Your task to perform on an android device: stop showing notifications on the lock screen Image 0: 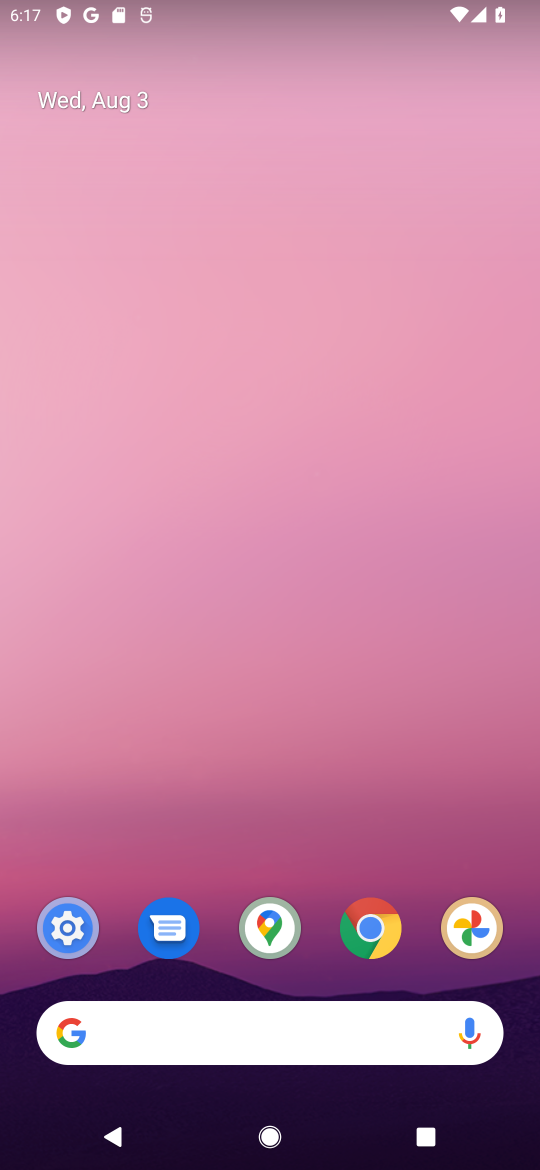
Step 0: press home button
Your task to perform on an android device: stop showing notifications on the lock screen Image 1: 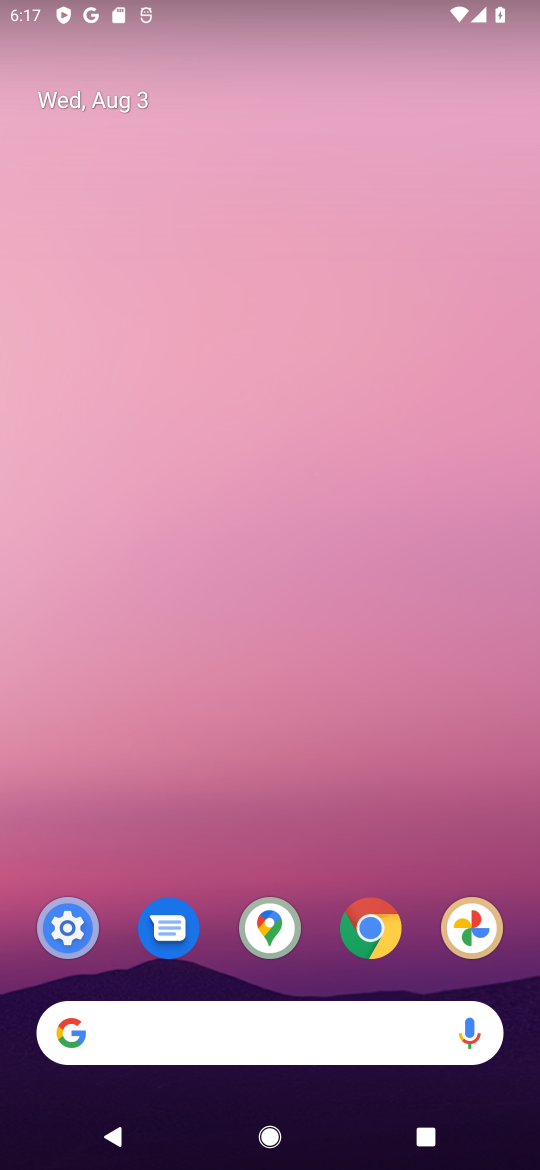
Step 1: drag from (315, 860) to (334, 204)
Your task to perform on an android device: stop showing notifications on the lock screen Image 2: 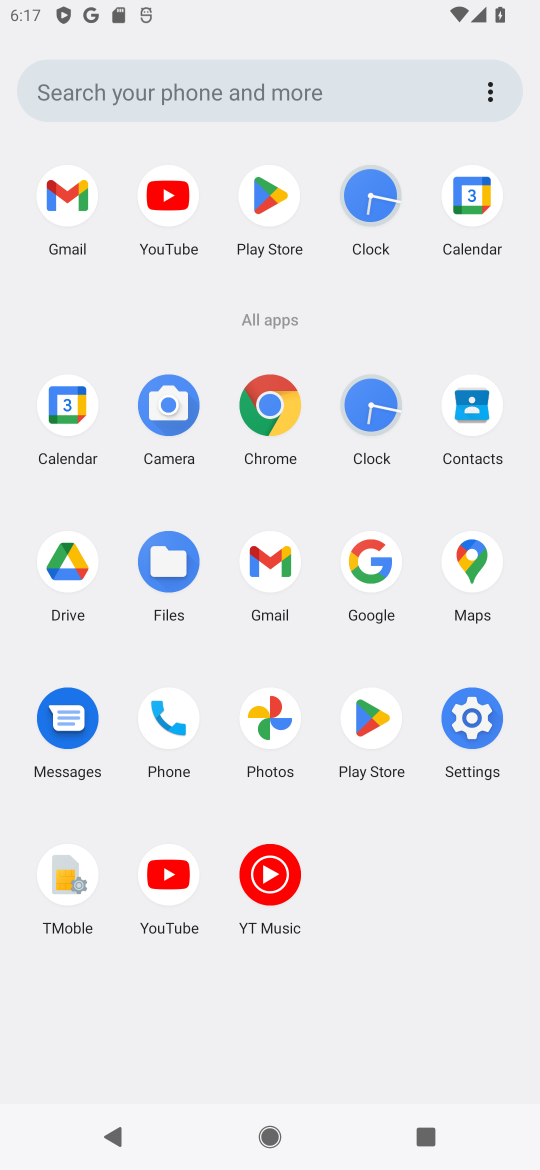
Step 2: click (468, 726)
Your task to perform on an android device: stop showing notifications on the lock screen Image 3: 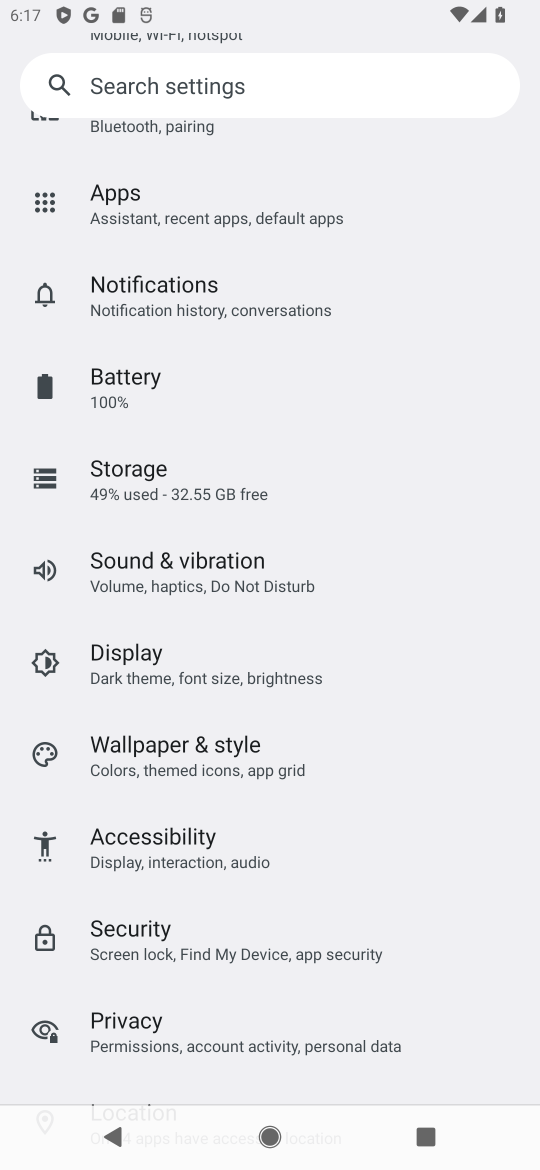
Step 3: drag from (472, 991) to (484, 809)
Your task to perform on an android device: stop showing notifications on the lock screen Image 4: 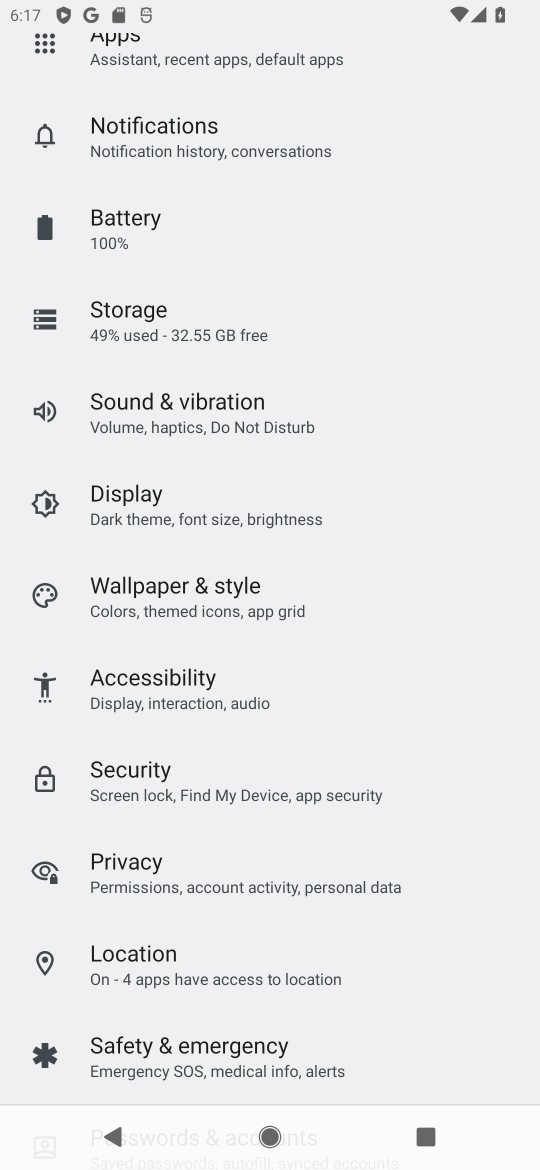
Step 4: drag from (435, 982) to (449, 828)
Your task to perform on an android device: stop showing notifications on the lock screen Image 5: 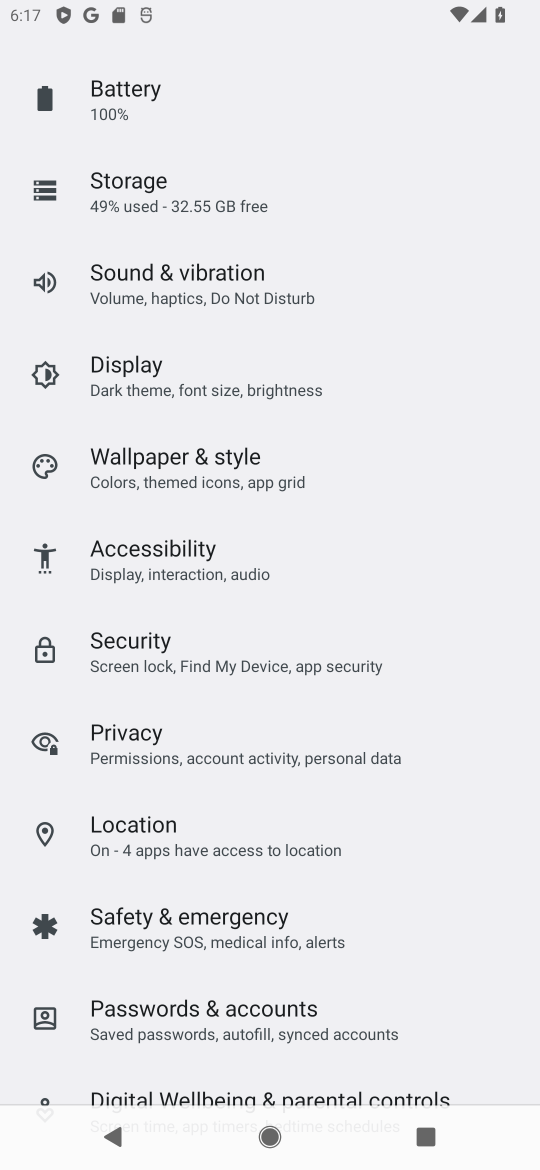
Step 5: drag from (423, 991) to (414, 544)
Your task to perform on an android device: stop showing notifications on the lock screen Image 6: 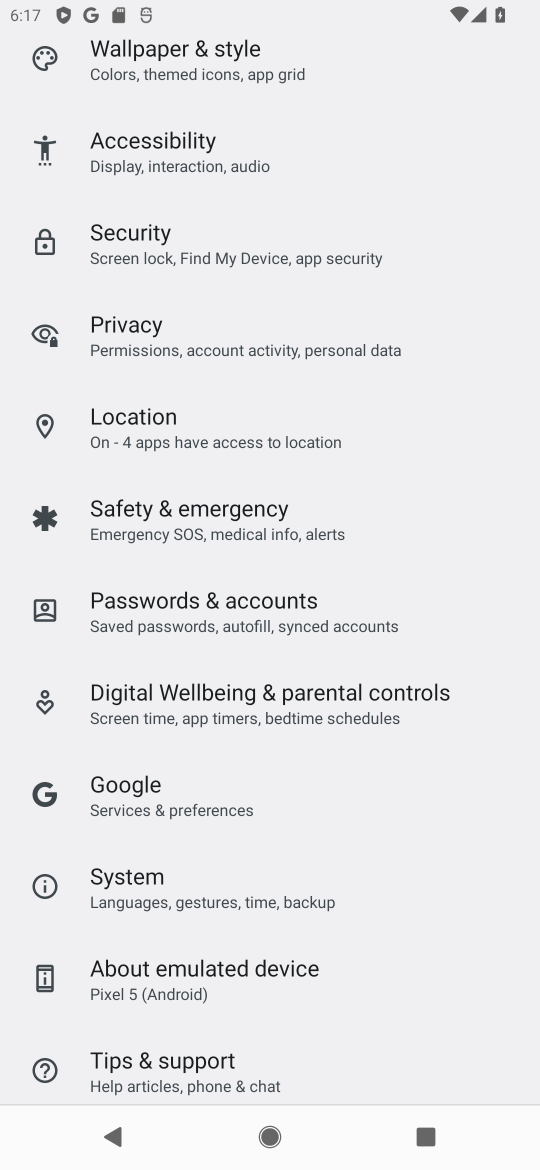
Step 6: drag from (415, 855) to (438, 628)
Your task to perform on an android device: stop showing notifications on the lock screen Image 7: 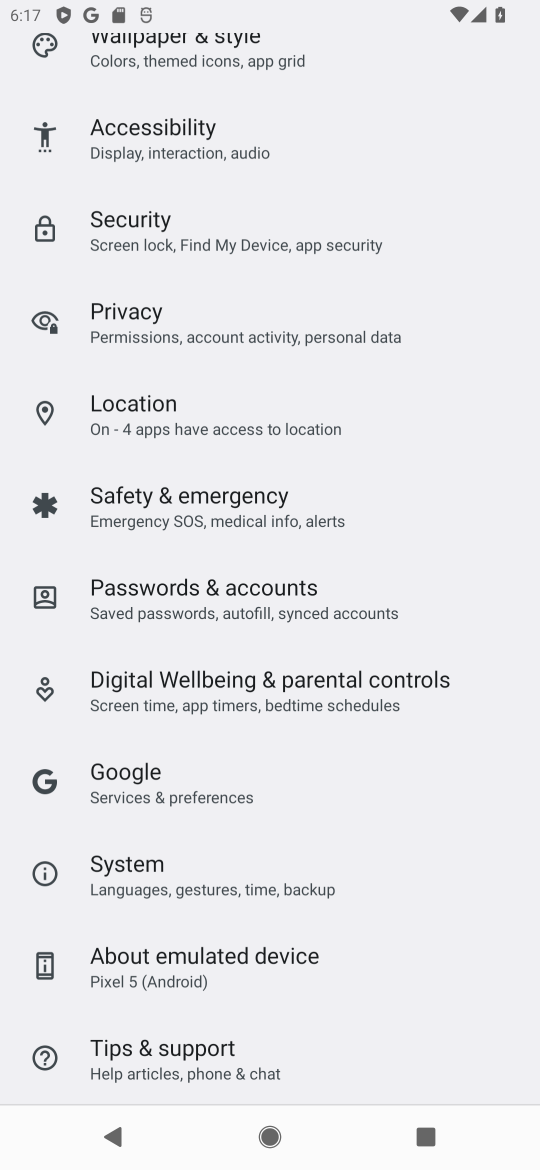
Step 7: drag from (463, 440) to (472, 601)
Your task to perform on an android device: stop showing notifications on the lock screen Image 8: 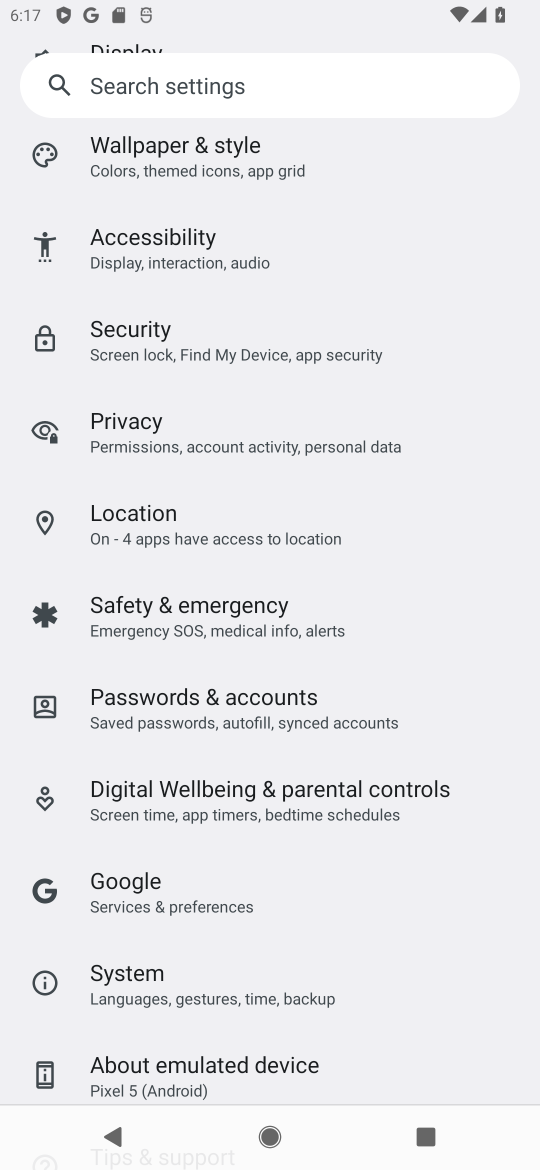
Step 8: drag from (463, 378) to (464, 506)
Your task to perform on an android device: stop showing notifications on the lock screen Image 9: 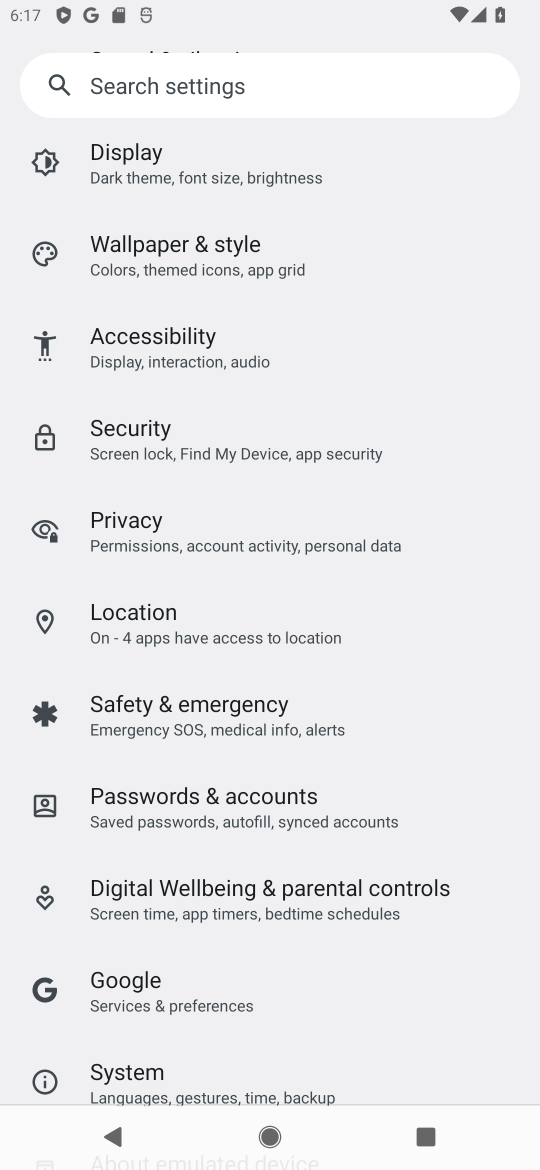
Step 9: drag from (462, 319) to (462, 490)
Your task to perform on an android device: stop showing notifications on the lock screen Image 10: 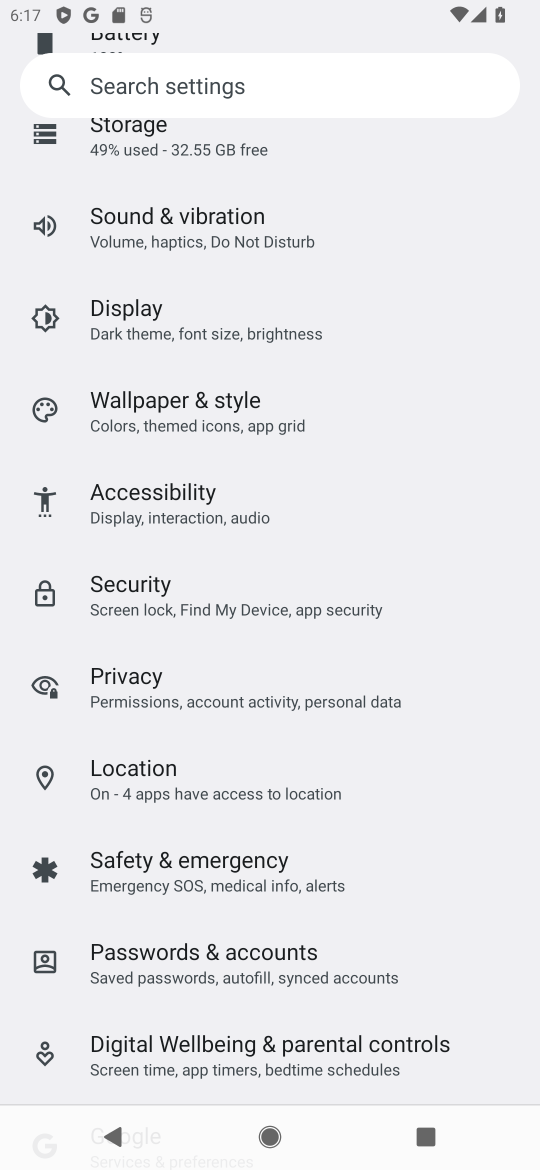
Step 10: drag from (451, 236) to (451, 536)
Your task to perform on an android device: stop showing notifications on the lock screen Image 11: 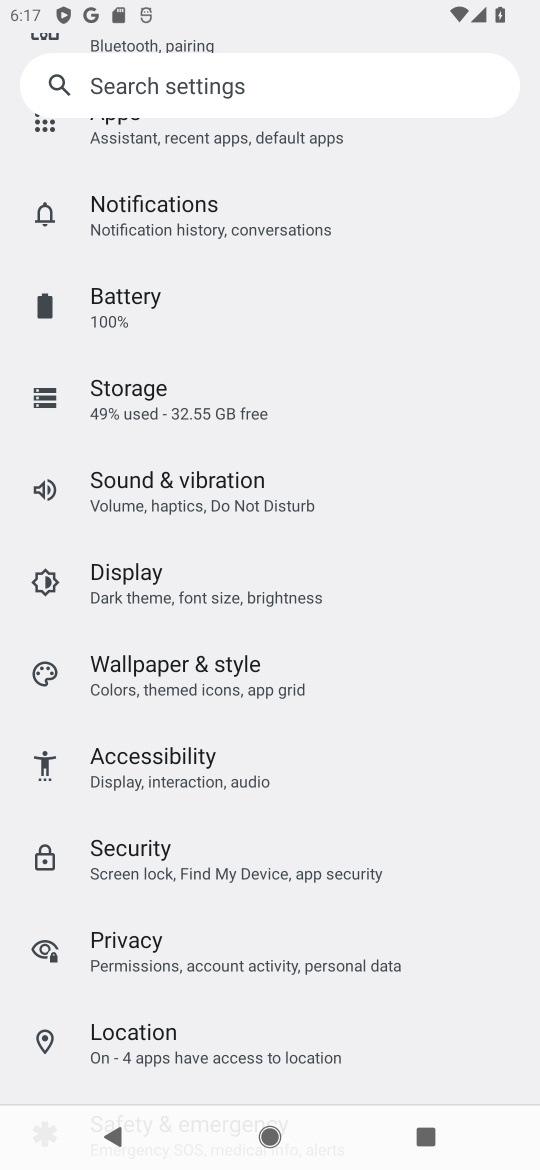
Step 11: drag from (462, 204) to (423, 615)
Your task to perform on an android device: stop showing notifications on the lock screen Image 12: 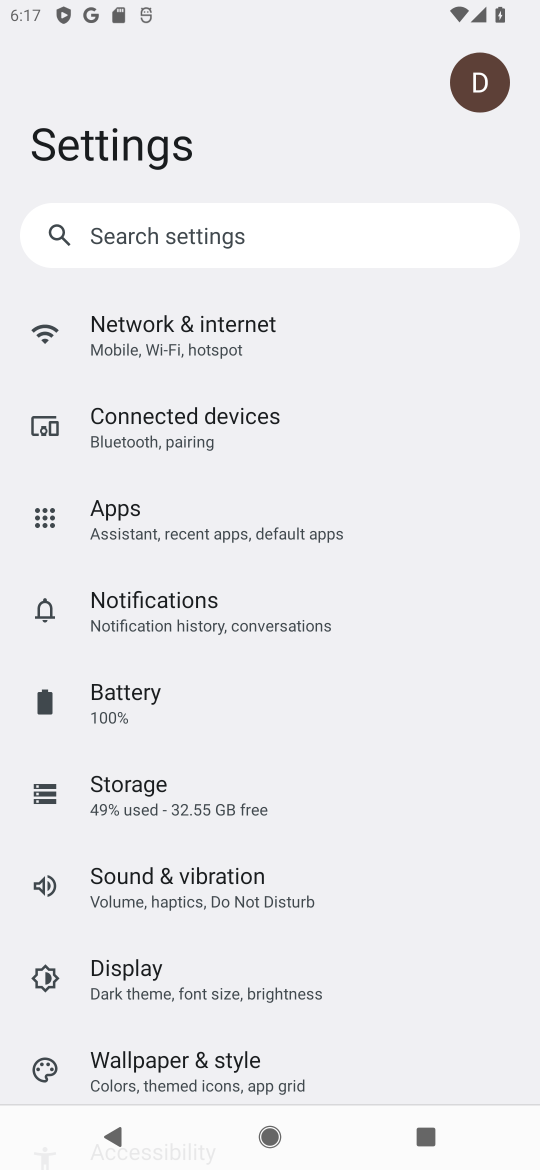
Step 12: drag from (428, 344) to (436, 712)
Your task to perform on an android device: stop showing notifications on the lock screen Image 13: 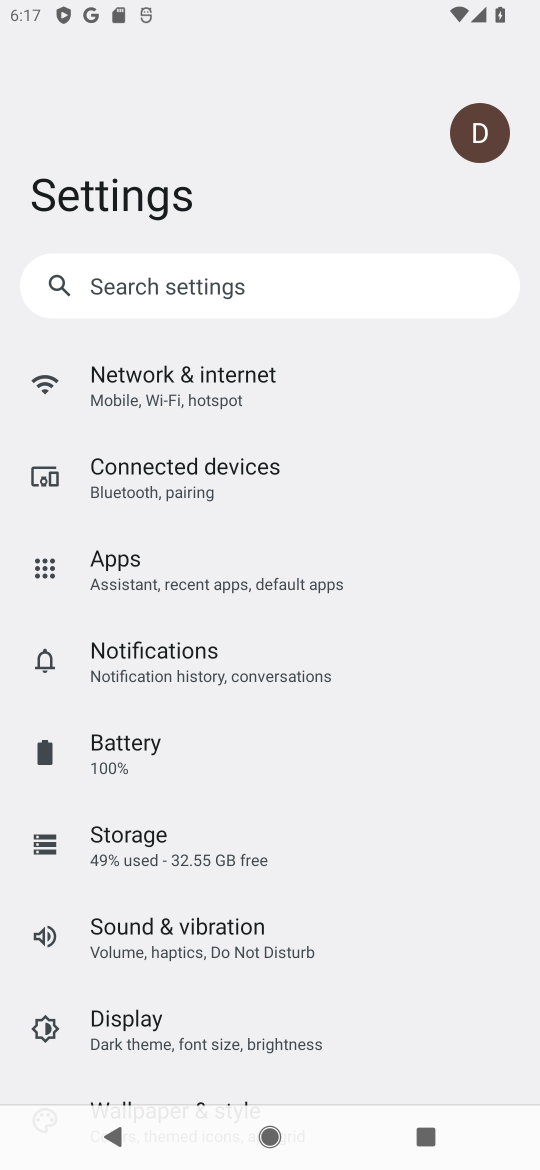
Step 13: click (250, 672)
Your task to perform on an android device: stop showing notifications on the lock screen Image 14: 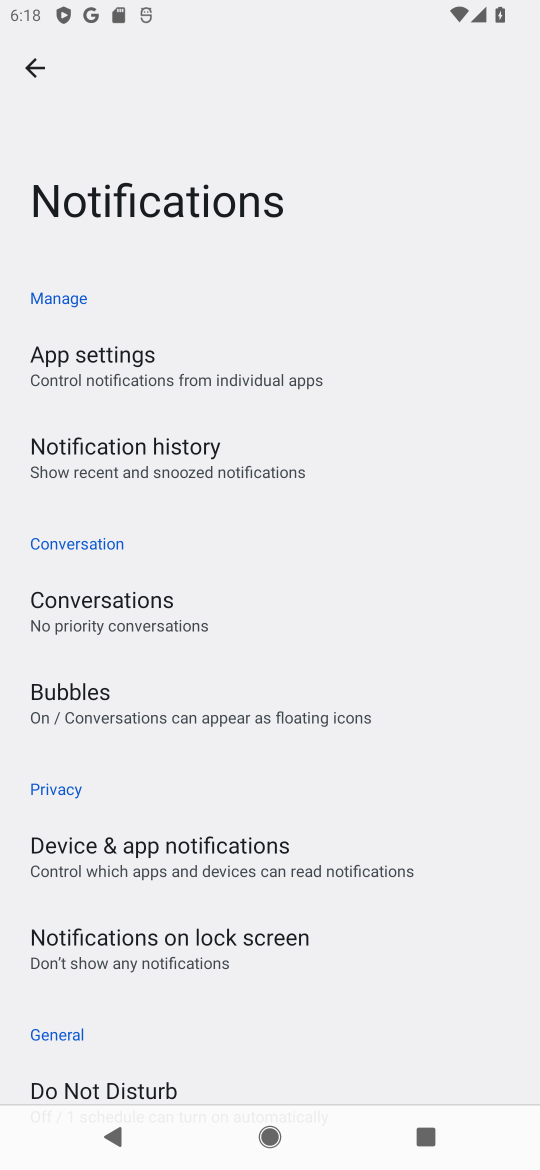
Step 14: drag from (379, 751) to (398, 636)
Your task to perform on an android device: stop showing notifications on the lock screen Image 15: 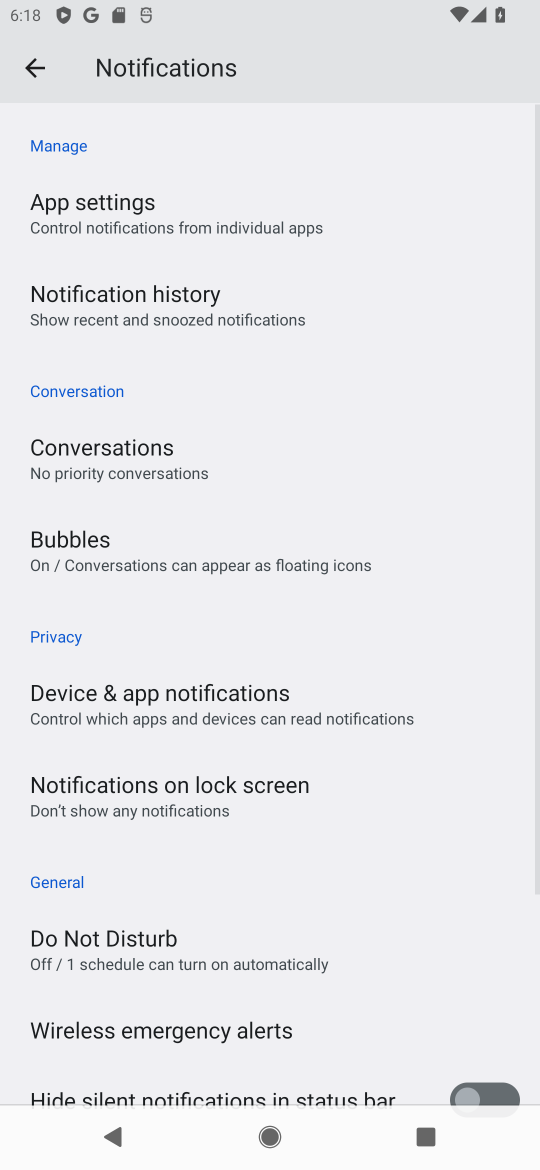
Step 15: drag from (433, 822) to (443, 663)
Your task to perform on an android device: stop showing notifications on the lock screen Image 16: 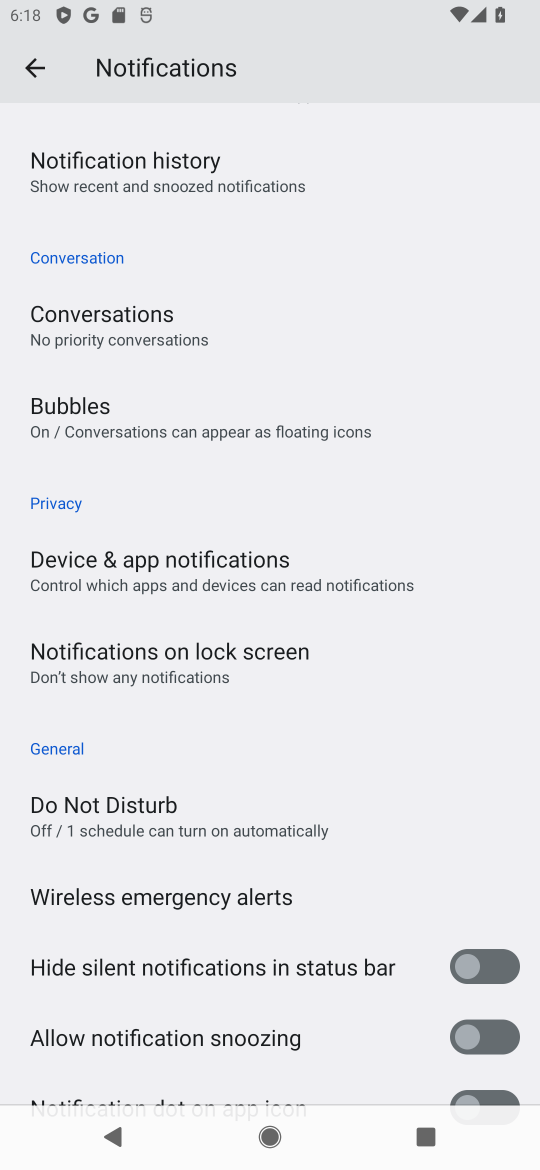
Step 16: click (263, 696)
Your task to perform on an android device: stop showing notifications on the lock screen Image 17: 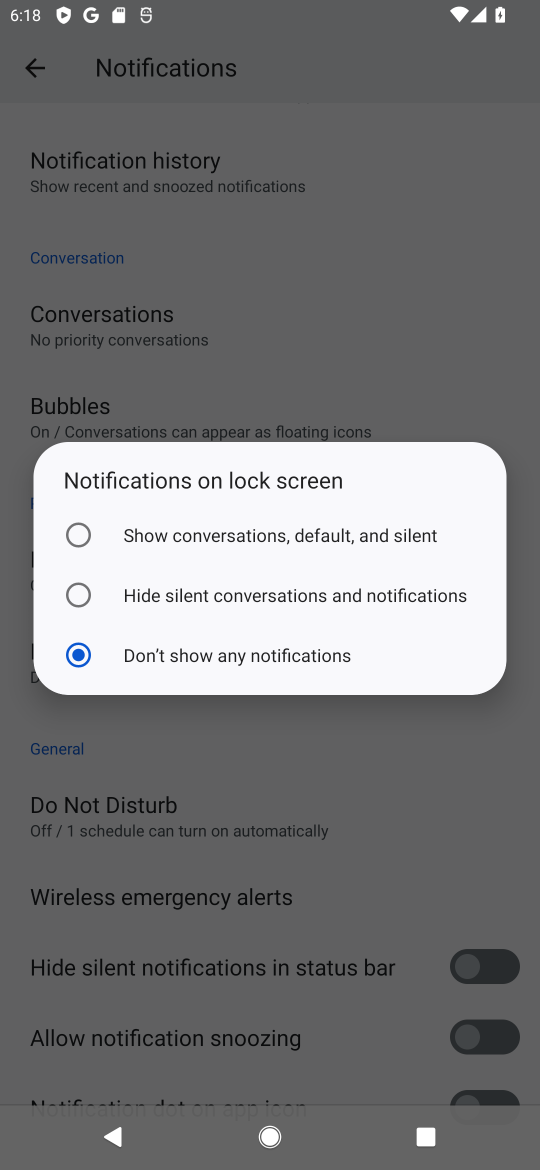
Step 17: task complete